Your task to perform on an android device: Open Chrome and go to settings Image 0: 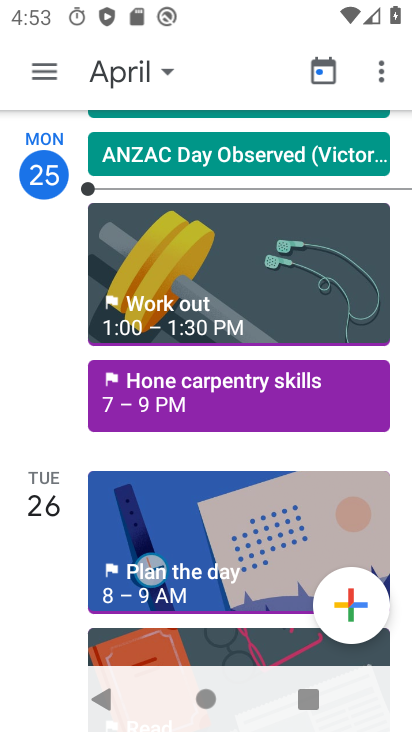
Step 0: press home button
Your task to perform on an android device: Open Chrome and go to settings Image 1: 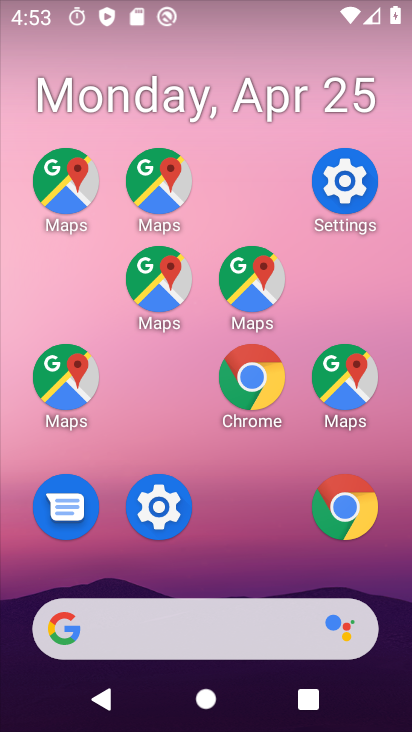
Step 1: drag from (266, 644) to (164, 48)
Your task to perform on an android device: Open Chrome and go to settings Image 2: 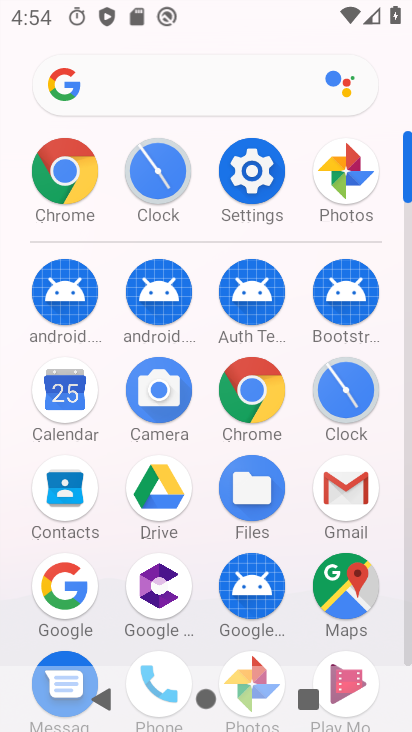
Step 2: click (261, 384)
Your task to perform on an android device: Open Chrome and go to settings Image 3: 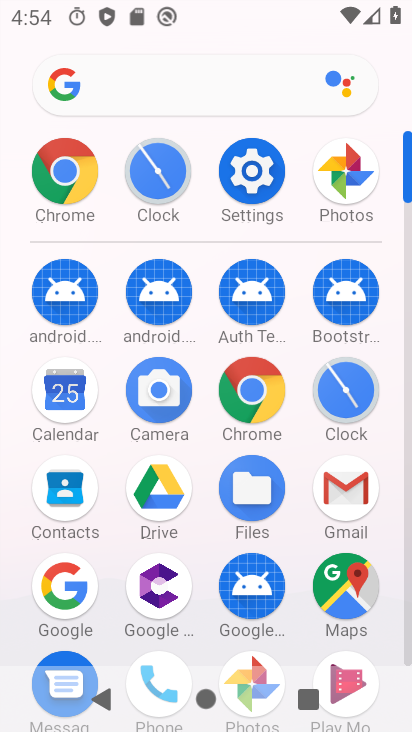
Step 3: click (251, 398)
Your task to perform on an android device: Open Chrome and go to settings Image 4: 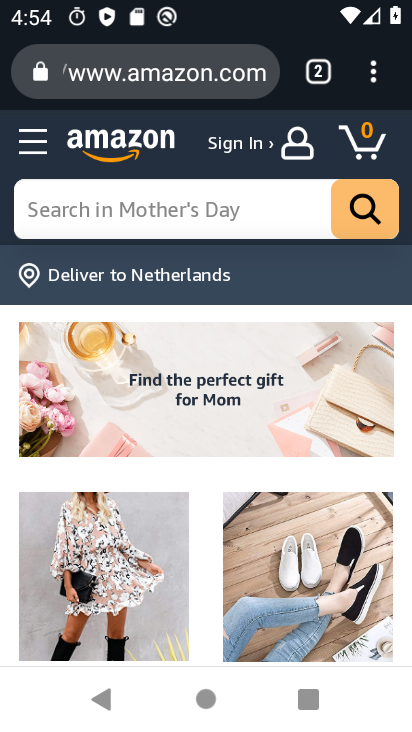
Step 4: drag from (370, 73) to (121, 516)
Your task to perform on an android device: Open Chrome and go to settings Image 5: 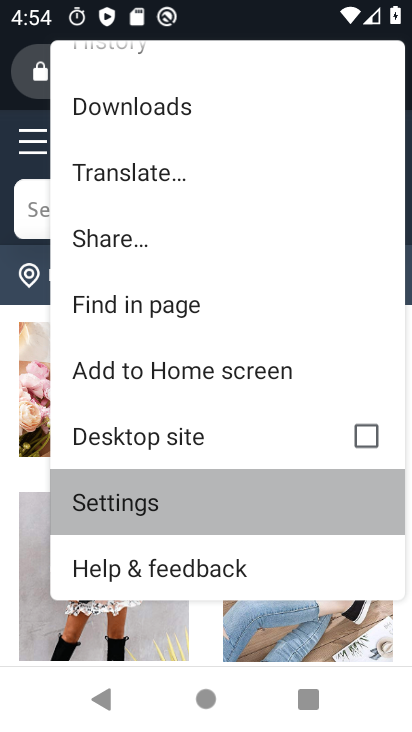
Step 5: click (121, 517)
Your task to perform on an android device: Open Chrome and go to settings Image 6: 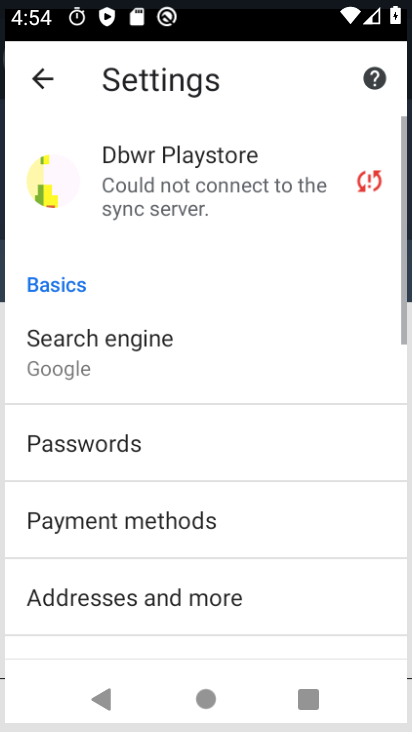
Step 6: click (122, 514)
Your task to perform on an android device: Open Chrome and go to settings Image 7: 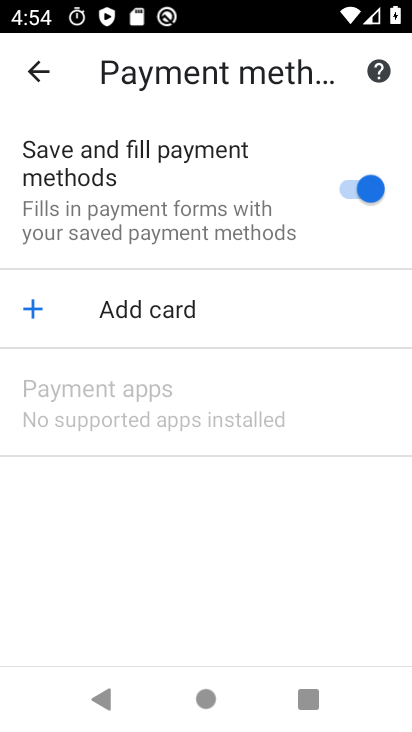
Step 7: drag from (225, 539) to (167, 67)
Your task to perform on an android device: Open Chrome and go to settings Image 8: 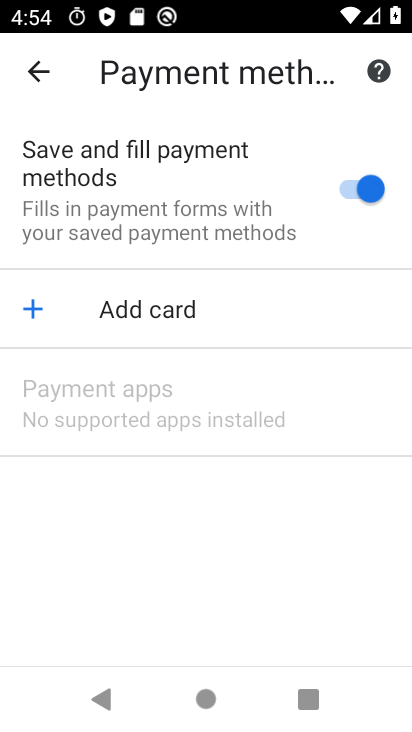
Step 8: click (34, 68)
Your task to perform on an android device: Open Chrome and go to settings Image 9: 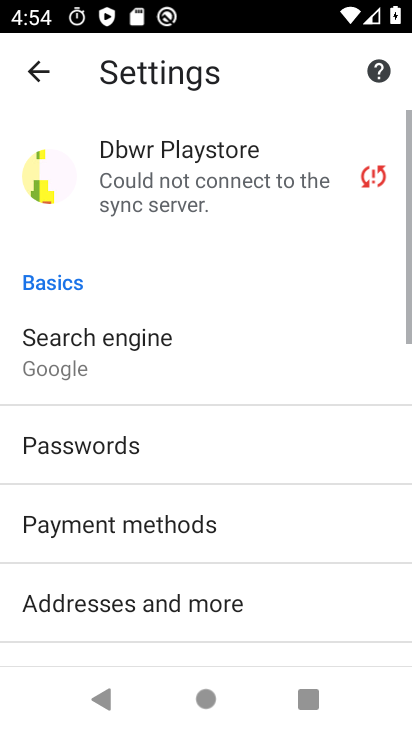
Step 9: drag from (184, 489) to (162, 50)
Your task to perform on an android device: Open Chrome and go to settings Image 10: 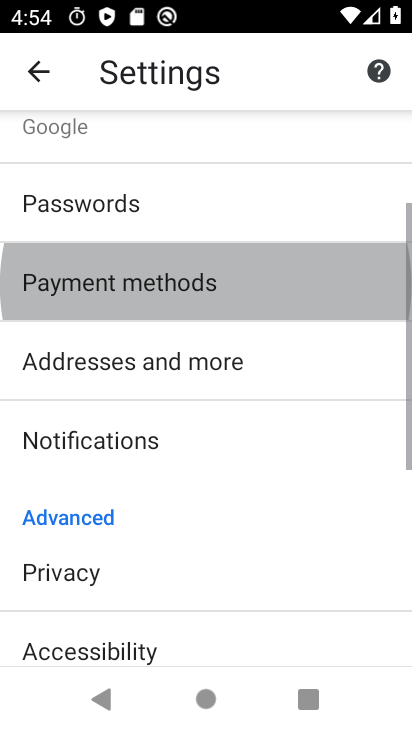
Step 10: drag from (205, 336) to (167, 90)
Your task to perform on an android device: Open Chrome and go to settings Image 11: 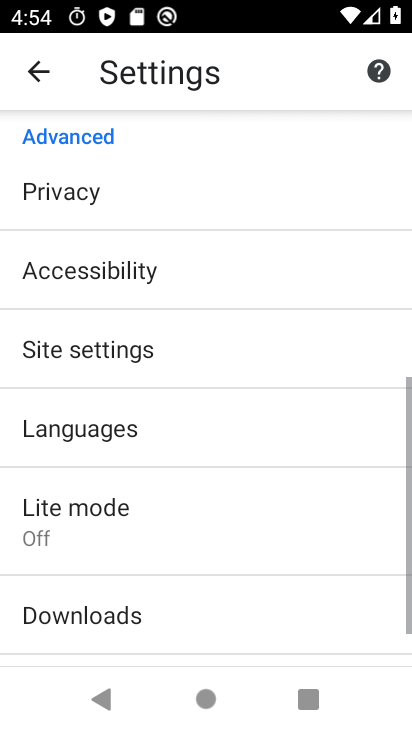
Step 11: drag from (157, 188) to (168, 81)
Your task to perform on an android device: Open Chrome and go to settings Image 12: 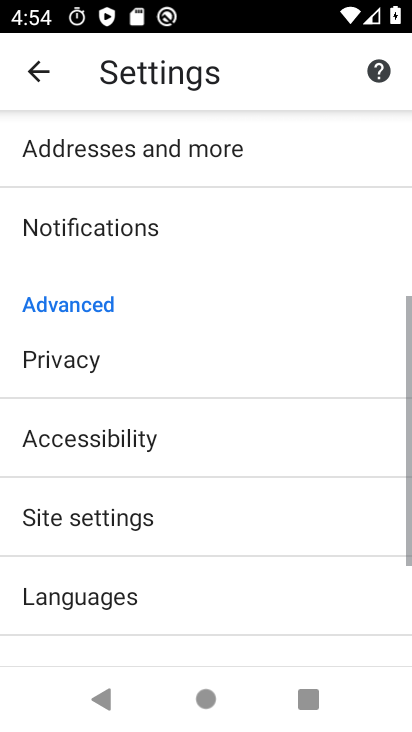
Step 12: drag from (181, 416) to (150, 188)
Your task to perform on an android device: Open Chrome and go to settings Image 13: 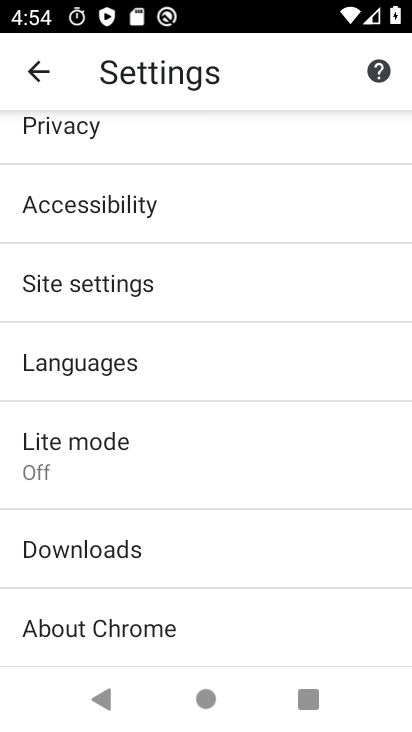
Step 13: click (44, 275)
Your task to perform on an android device: Open Chrome and go to settings Image 14: 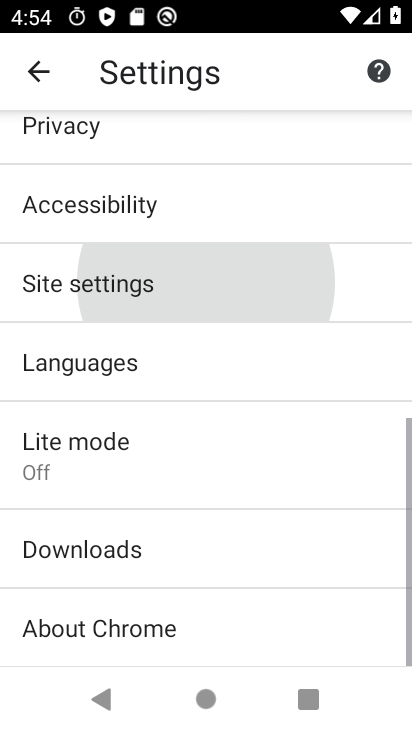
Step 14: click (49, 273)
Your task to perform on an android device: Open Chrome and go to settings Image 15: 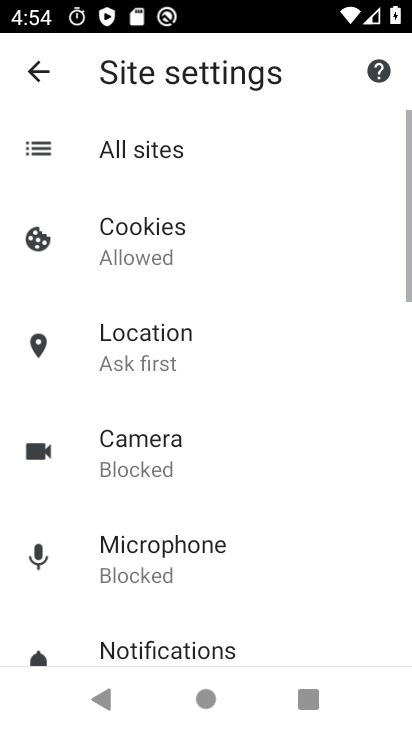
Step 15: task complete